Your task to perform on an android device: turn notification dots on Image 0: 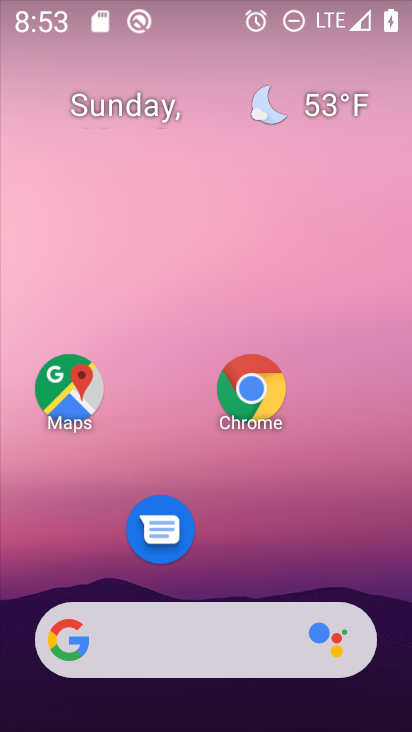
Step 0: drag from (213, 569) to (288, 48)
Your task to perform on an android device: turn notification dots on Image 1: 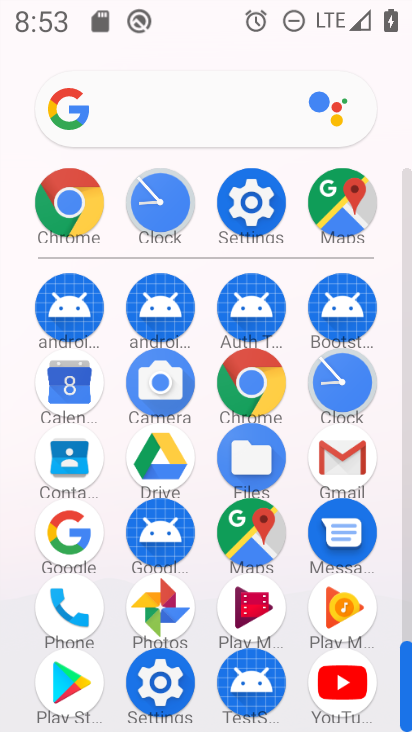
Step 1: click (251, 229)
Your task to perform on an android device: turn notification dots on Image 2: 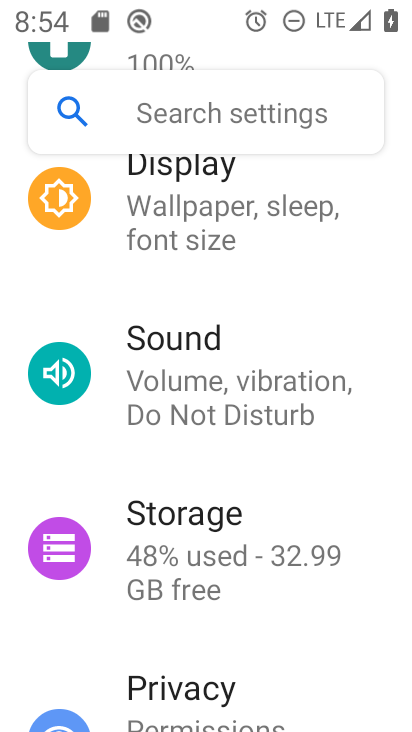
Step 2: drag from (239, 272) to (192, 694)
Your task to perform on an android device: turn notification dots on Image 3: 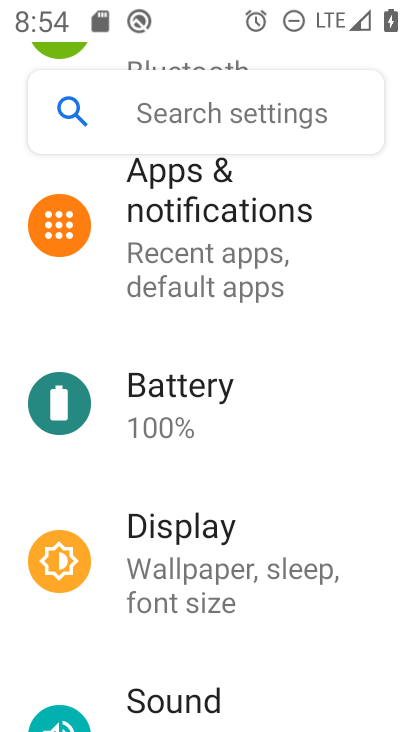
Step 3: click (249, 247)
Your task to perform on an android device: turn notification dots on Image 4: 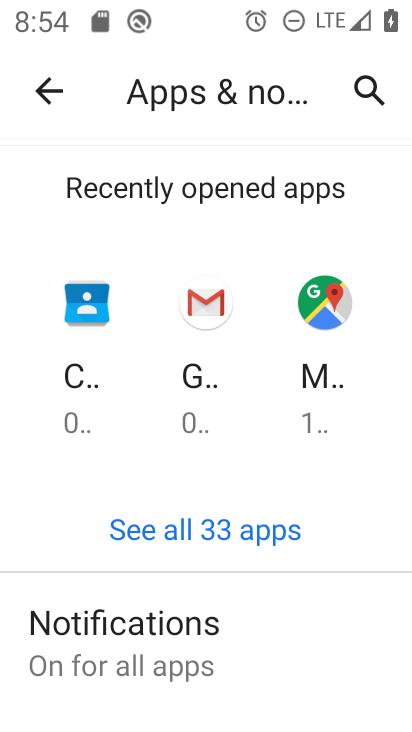
Step 4: drag from (203, 614) to (235, 401)
Your task to perform on an android device: turn notification dots on Image 5: 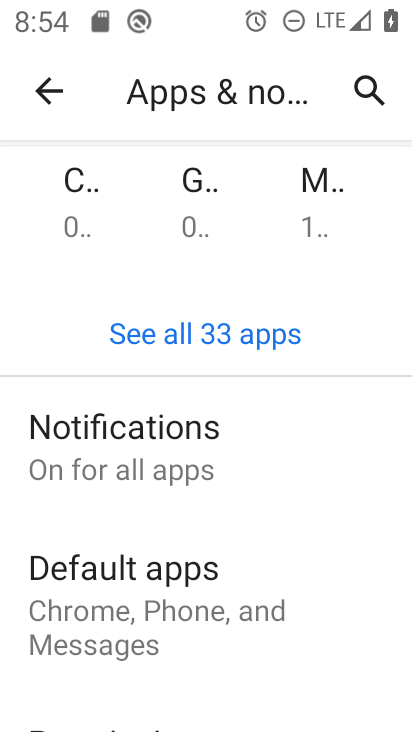
Step 5: click (173, 459)
Your task to perform on an android device: turn notification dots on Image 6: 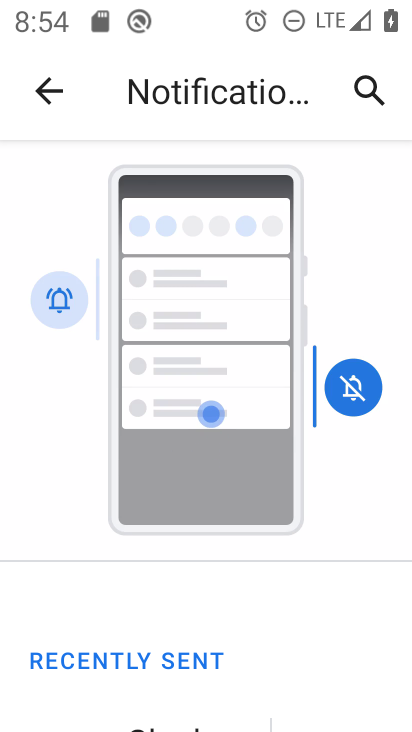
Step 6: drag from (196, 575) to (283, 255)
Your task to perform on an android device: turn notification dots on Image 7: 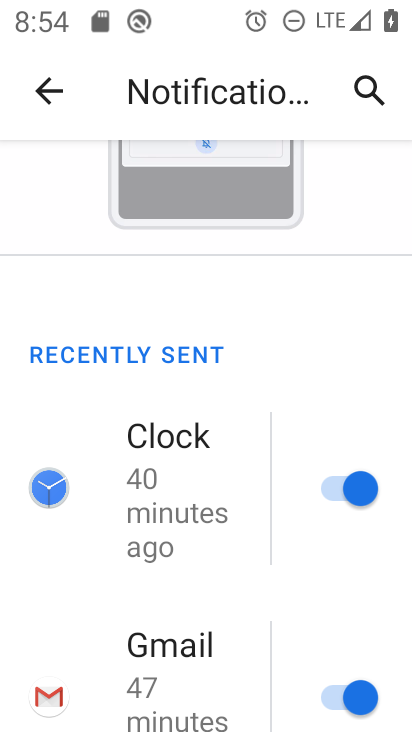
Step 7: drag from (225, 583) to (272, 15)
Your task to perform on an android device: turn notification dots on Image 8: 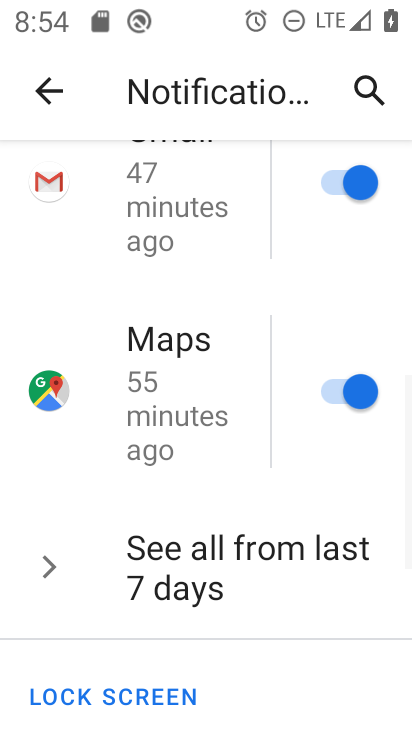
Step 8: drag from (163, 598) to (209, 339)
Your task to perform on an android device: turn notification dots on Image 9: 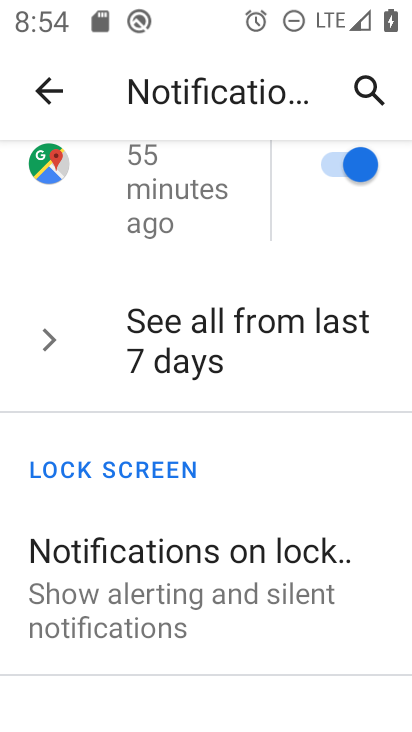
Step 9: drag from (184, 619) to (216, 229)
Your task to perform on an android device: turn notification dots on Image 10: 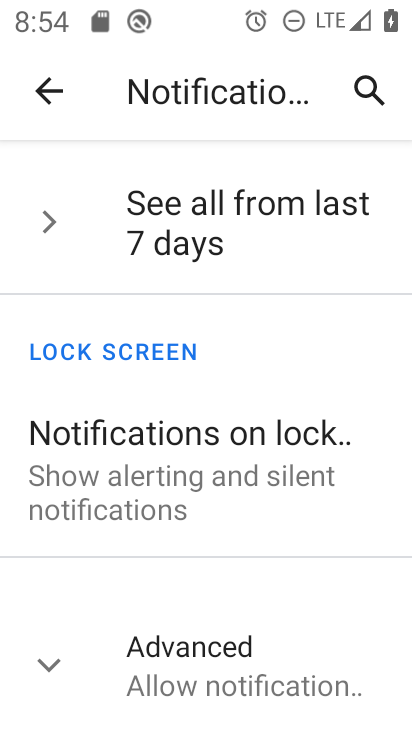
Step 10: click (183, 673)
Your task to perform on an android device: turn notification dots on Image 11: 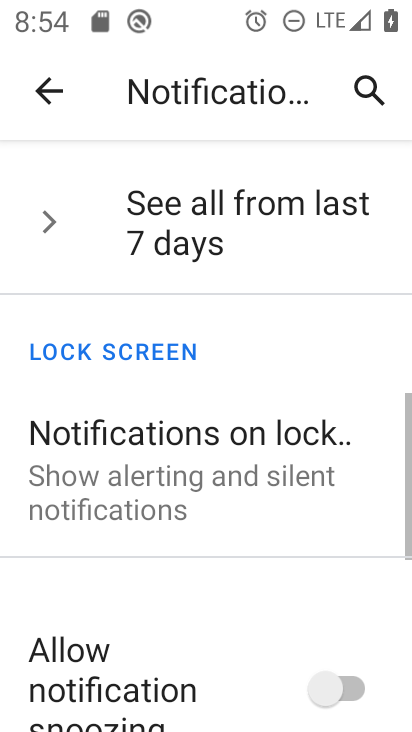
Step 11: task complete